Your task to perform on an android device: What's on my calendar tomorrow? Image 0: 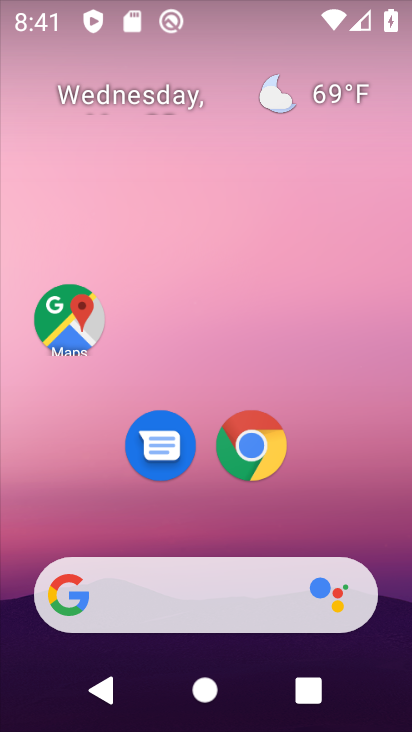
Step 0: drag from (336, 498) to (318, 123)
Your task to perform on an android device: What's on my calendar tomorrow? Image 1: 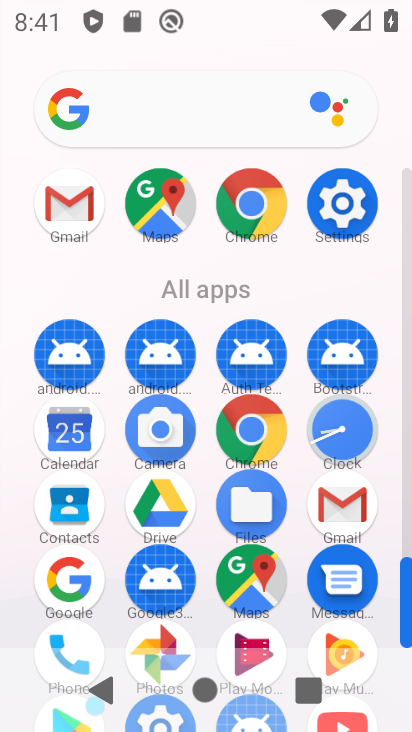
Step 1: click (59, 436)
Your task to perform on an android device: What's on my calendar tomorrow? Image 2: 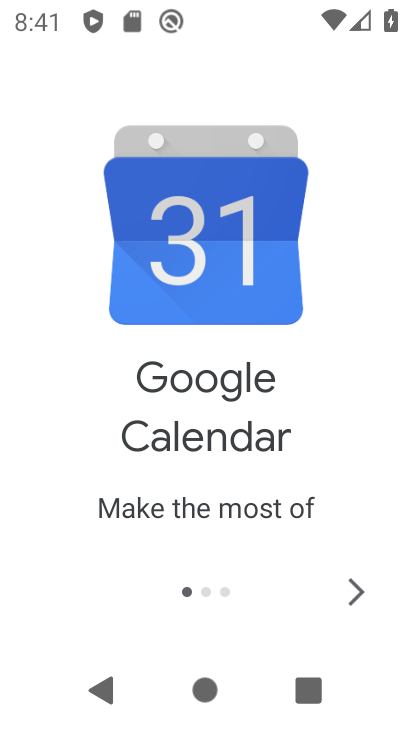
Step 2: click (349, 588)
Your task to perform on an android device: What's on my calendar tomorrow? Image 3: 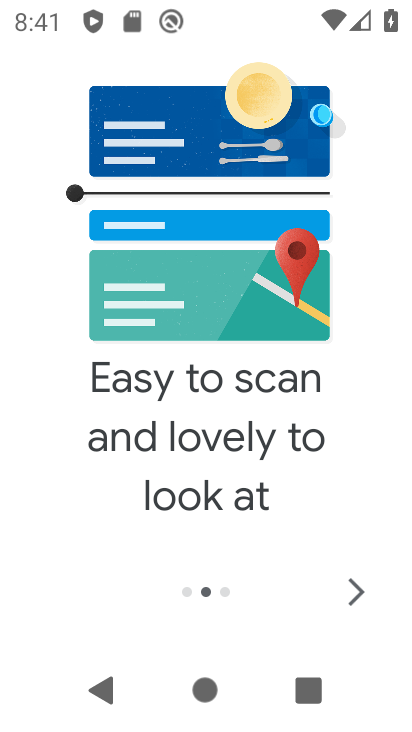
Step 3: click (349, 588)
Your task to perform on an android device: What's on my calendar tomorrow? Image 4: 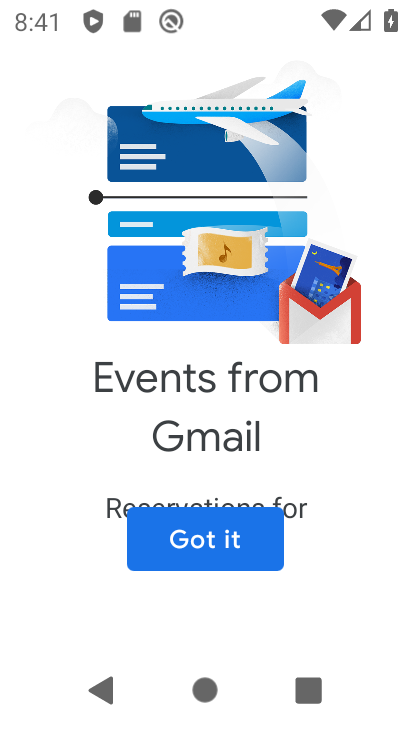
Step 4: click (349, 588)
Your task to perform on an android device: What's on my calendar tomorrow? Image 5: 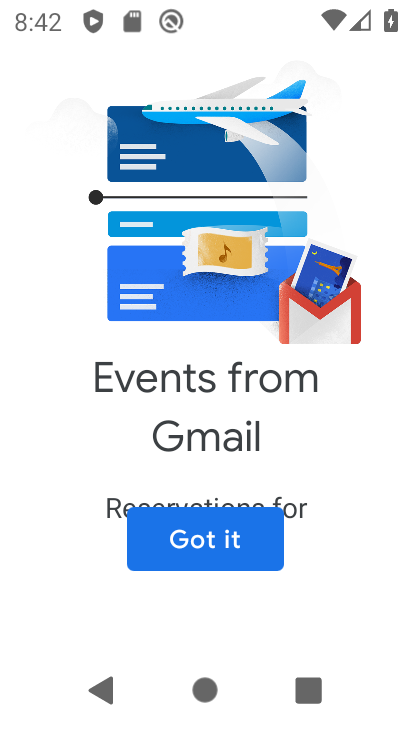
Step 5: click (242, 543)
Your task to perform on an android device: What's on my calendar tomorrow? Image 6: 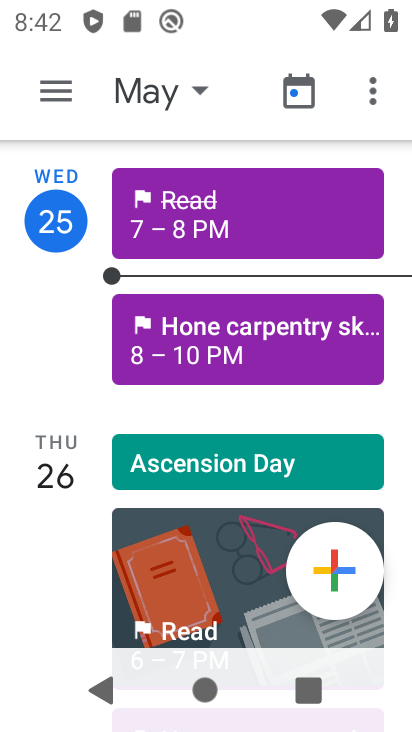
Step 6: click (185, 87)
Your task to perform on an android device: What's on my calendar tomorrow? Image 7: 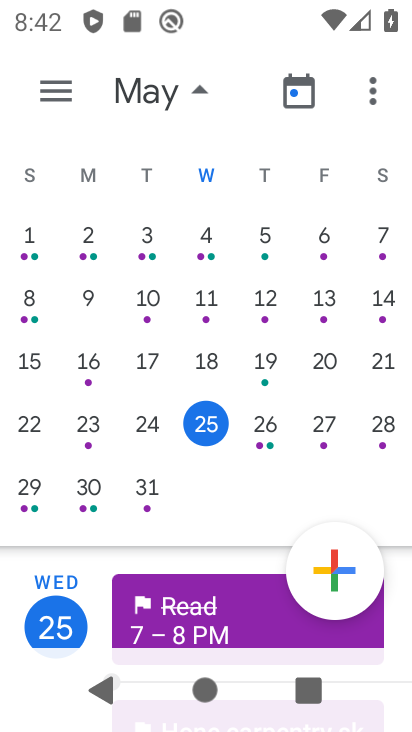
Step 7: click (270, 425)
Your task to perform on an android device: What's on my calendar tomorrow? Image 8: 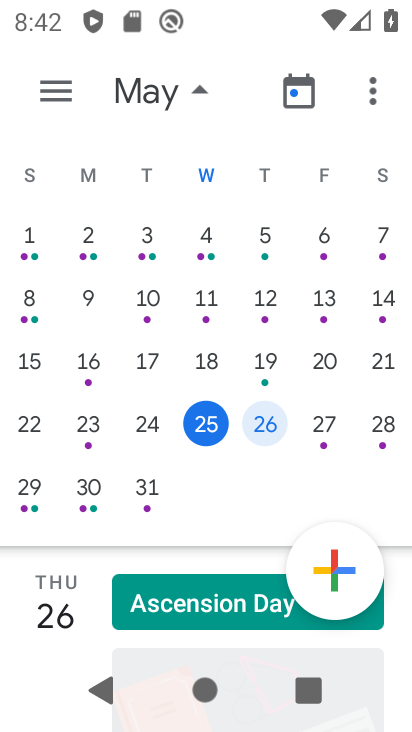
Step 8: task complete